Your task to perform on an android device: empty trash in the gmail app Image 0: 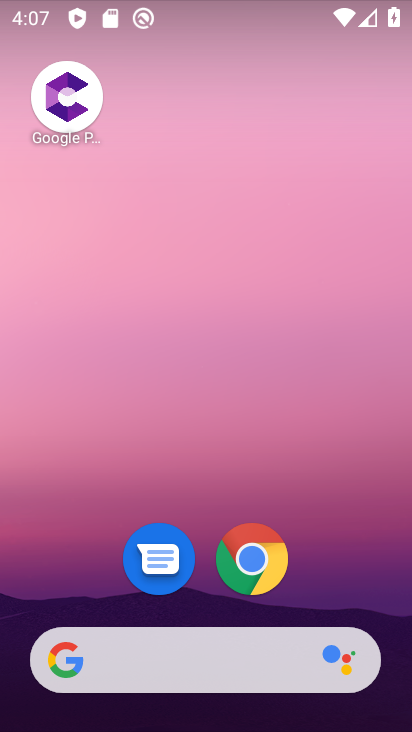
Step 0: drag from (315, 564) to (302, 168)
Your task to perform on an android device: empty trash in the gmail app Image 1: 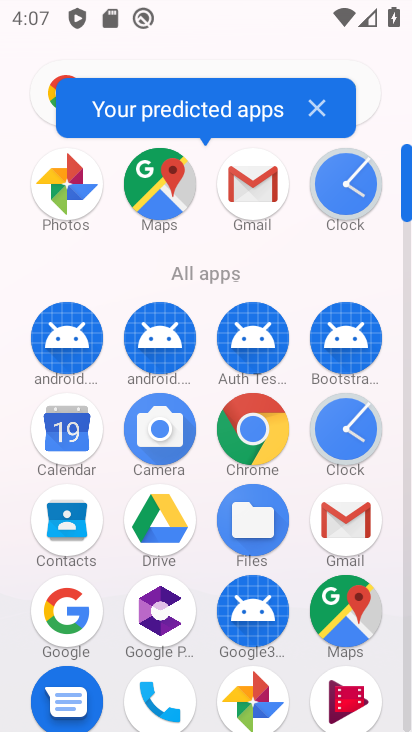
Step 1: click (272, 197)
Your task to perform on an android device: empty trash in the gmail app Image 2: 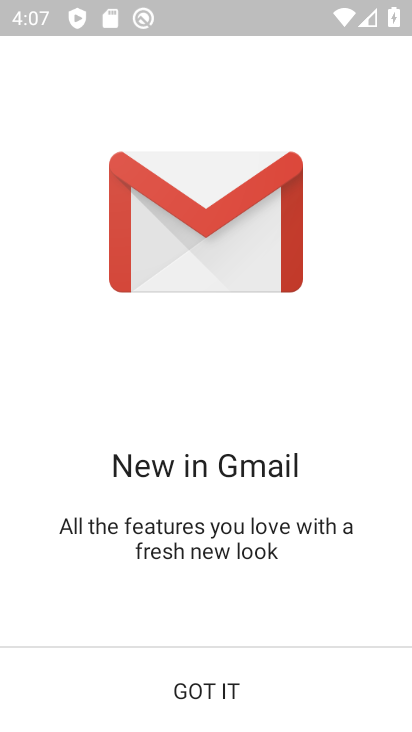
Step 2: click (269, 696)
Your task to perform on an android device: empty trash in the gmail app Image 3: 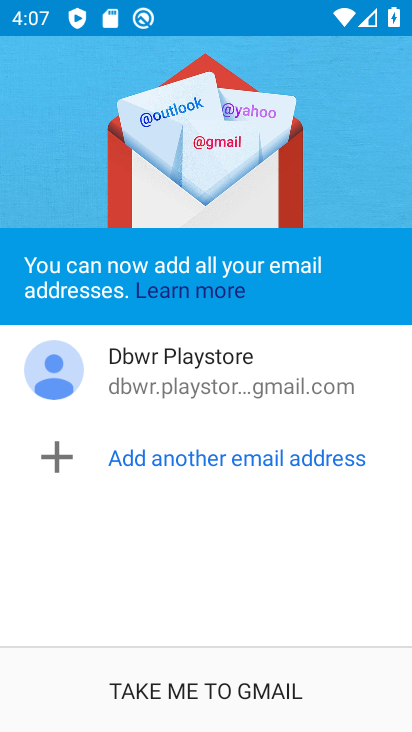
Step 3: click (261, 696)
Your task to perform on an android device: empty trash in the gmail app Image 4: 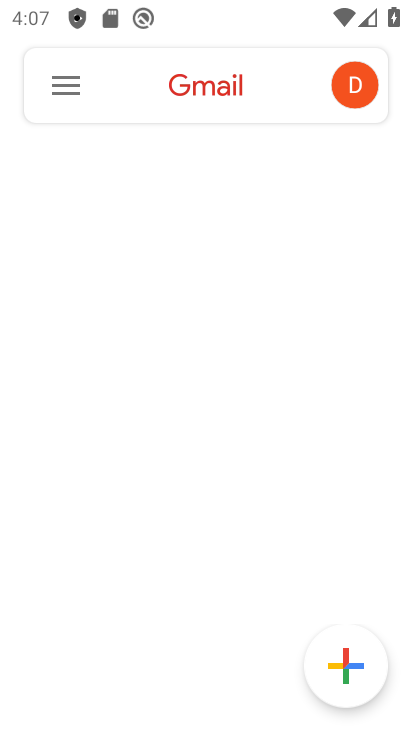
Step 4: click (271, 696)
Your task to perform on an android device: empty trash in the gmail app Image 5: 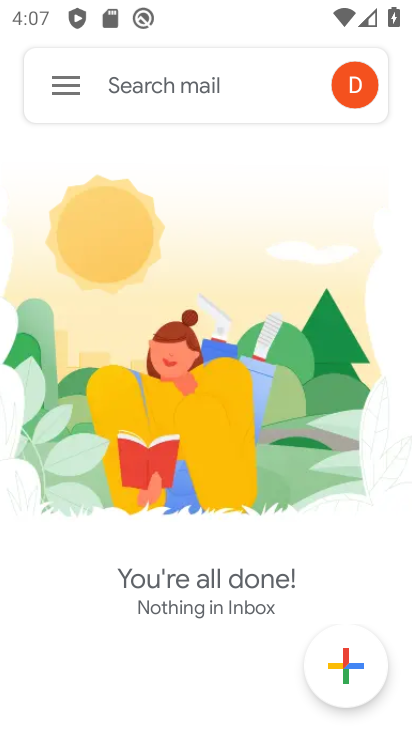
Step 5: task complete